Your task to perform on an android device: Add jbl charge 4 to the cart on costco Image 0: 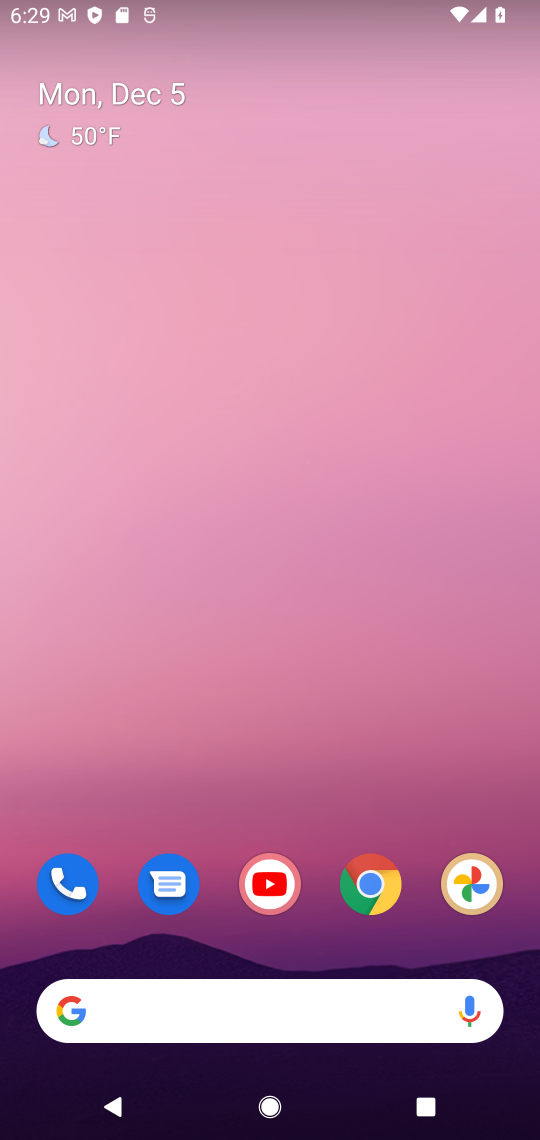
Step 0: click (376, 882)
Your task to perform on an android device: Add jbl charge 4 to the cart on costco Image 1: 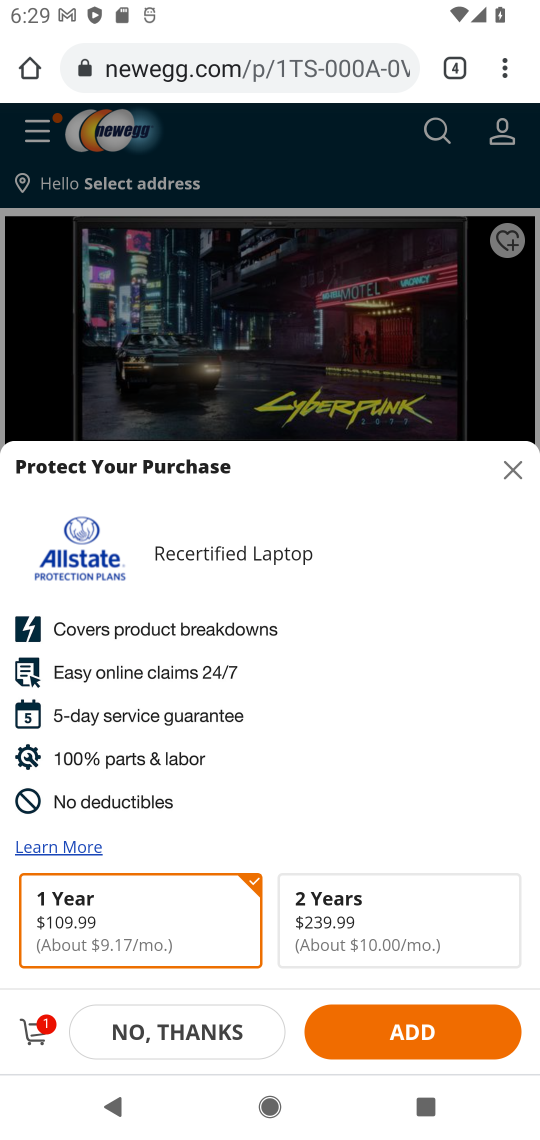
Step 1: click (453, 61)
Your task to perform on an android device: Add jbl charge 4 to the cart on costco Image 2: 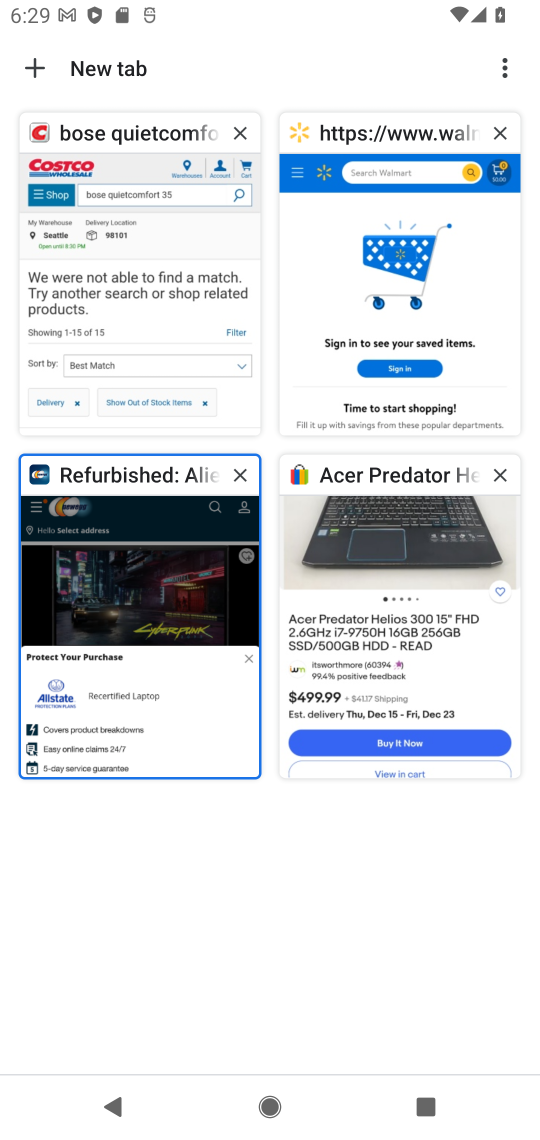
Step 2: click (88, 264)
Your task to perform on an android device: Add jbl charge 4 to the cart on costco Image 3: 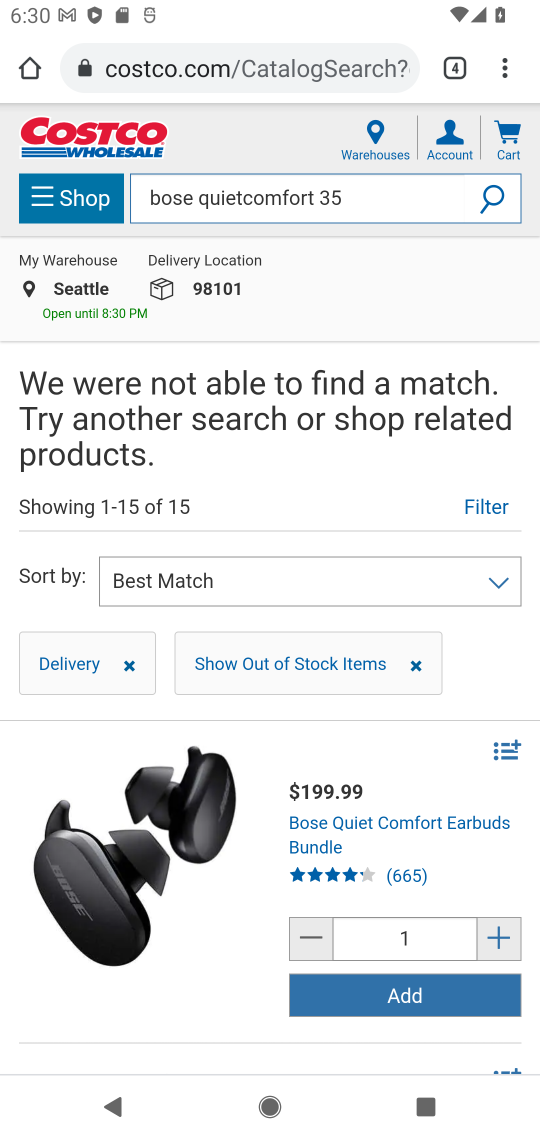
Step 3: click (442, 182)
Your task to perform on an android device: Add jbl charge 4 to the cart on costco Image 4: 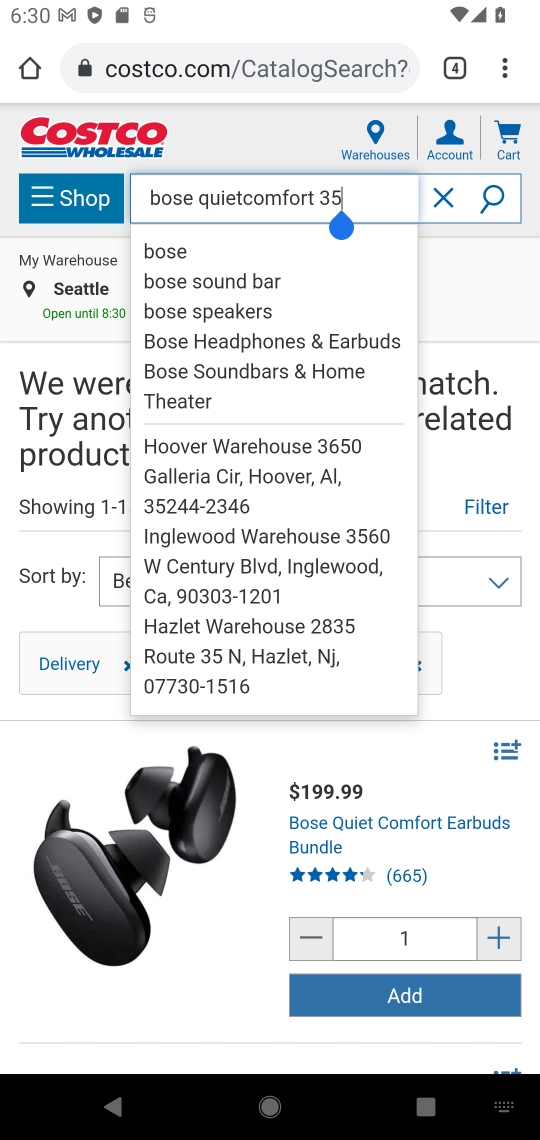
Step 4: click (443, 200)
Your task to perform on an android device: Add jbl charge 4 to the cart on costco Image 5: 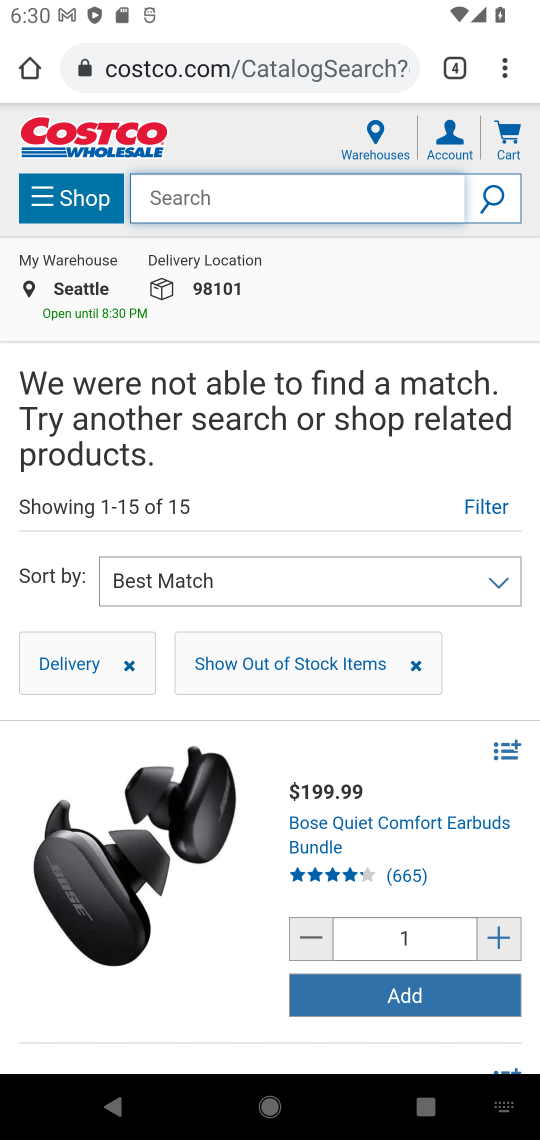
Step 5: type "jbl charge 4"
Your task to perform on an android device: Add jbl charge 4 to the cart on costco Image 6: 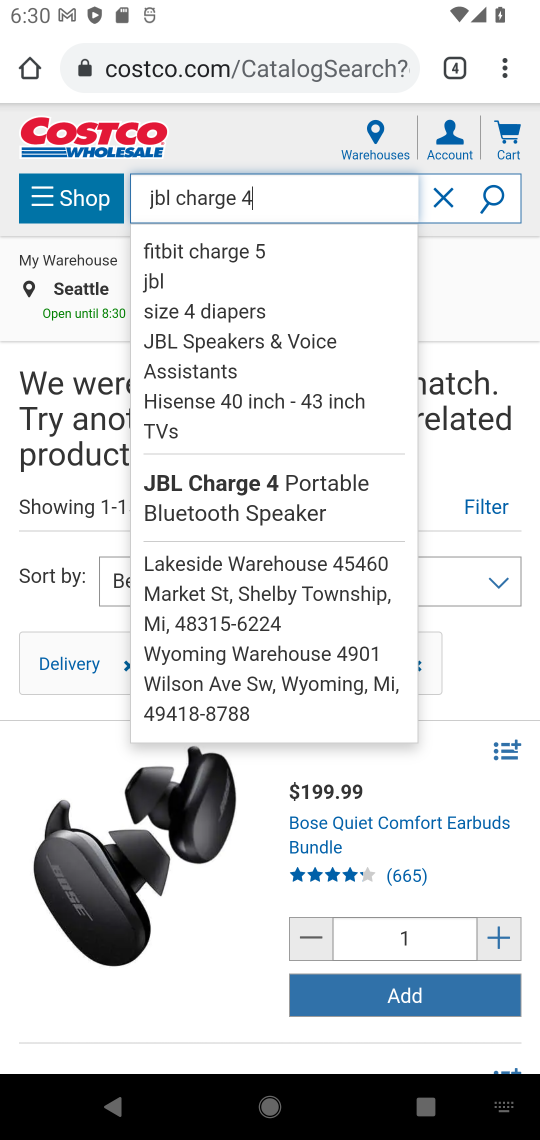
Step 6: click (487, 196)
Your task to perform on an android device: Add jbl charge 4 to the cart on costco Image 7: 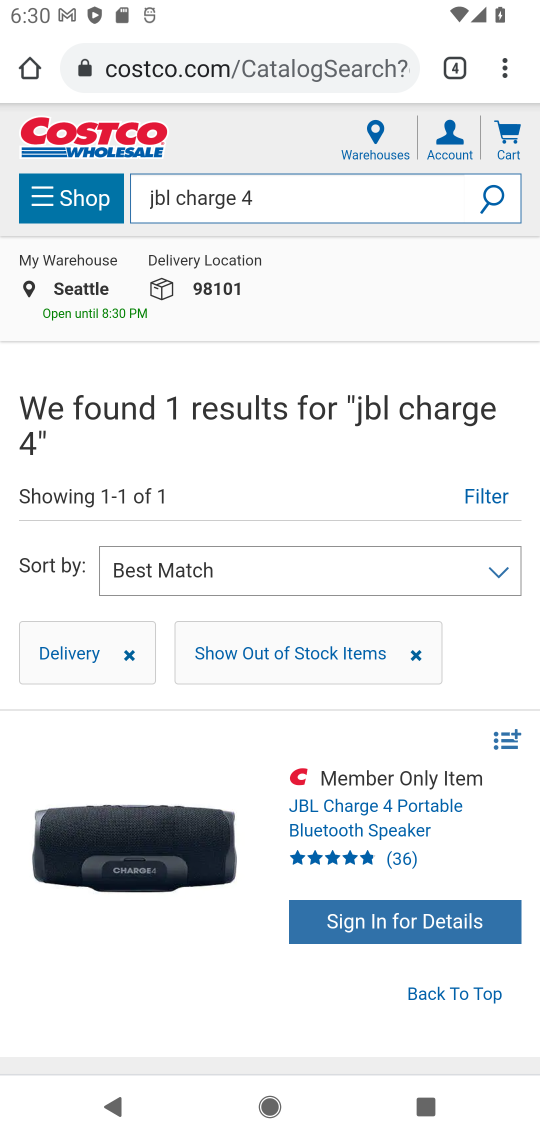
Step 7: click (387, 807)
Your task to perform on an android device: Add jbl charge 4 to the cart on costco Image 8: 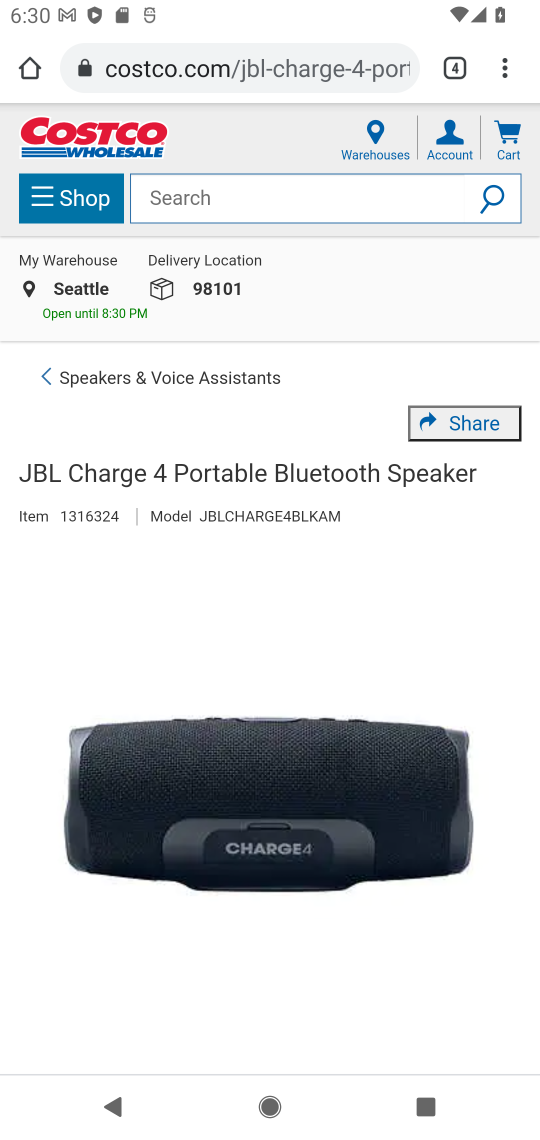
Step 8: task complete